Your task to perform on an android device: add a contact Image 0: 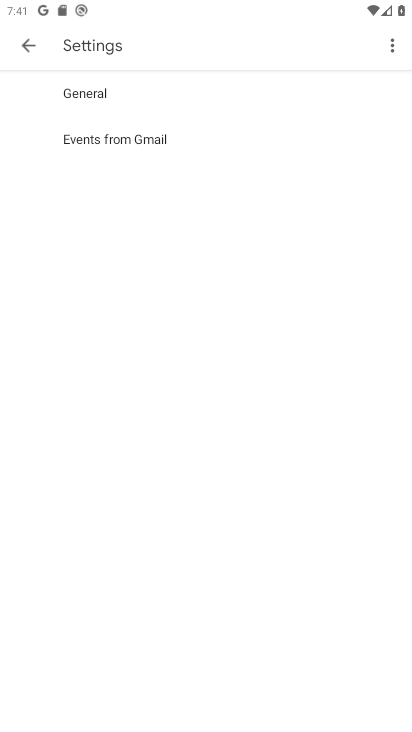
Step 0: press home button
Your task to perform on an android device: add a contact Image 1: 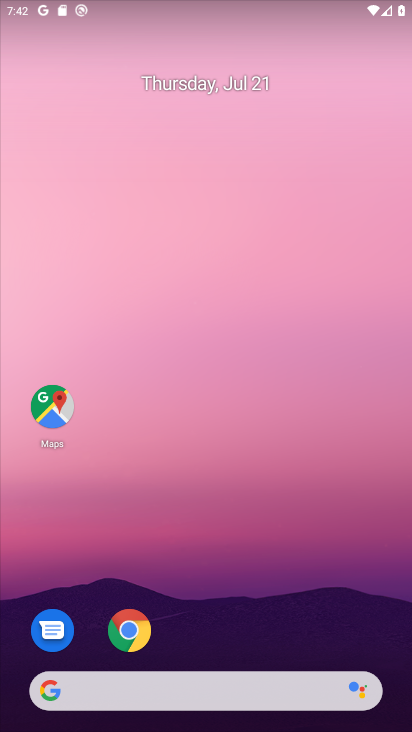
Step 1: drag from (226, 662) to (345, 37)
Your task to perform on an android device: add a contact Image 2: 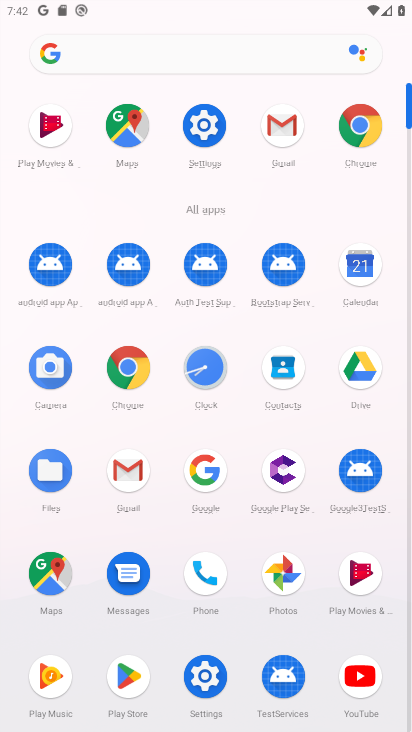
Step 2: click (215, 566)
Your task to perform on an android device: add a contact Image 3: 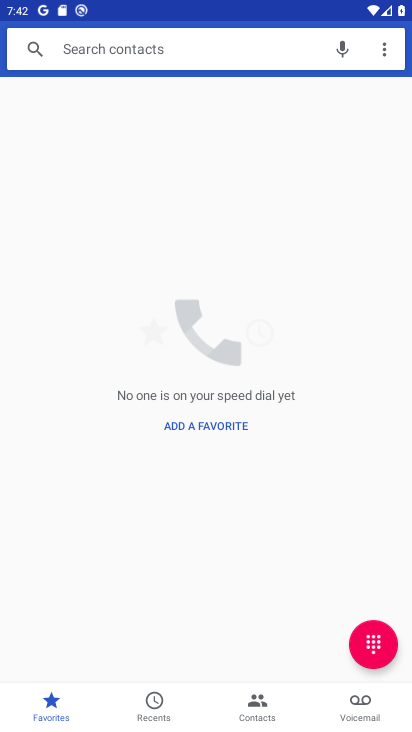
Step 3: click (249, 714)
Your task to perform on an android device: add a contact Image 4: 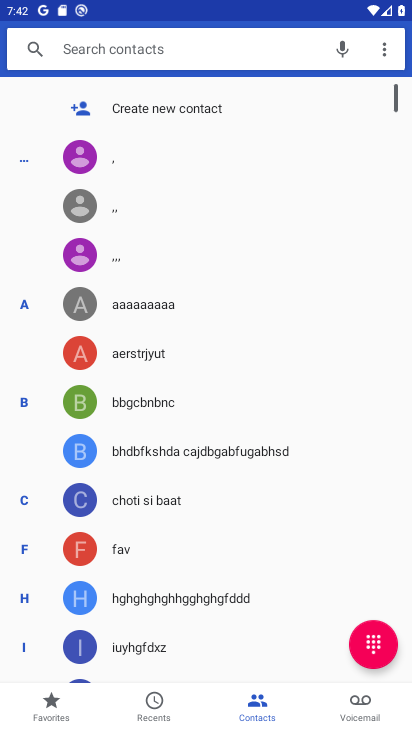
Step 4: click (133, 110)
Your task to perform on an android device: add a contact Image 5: 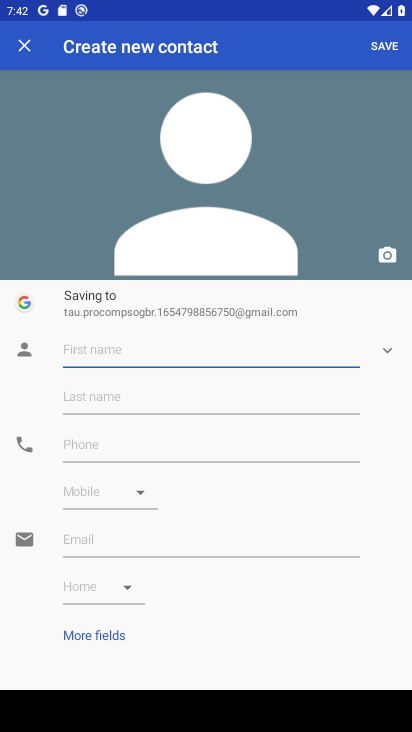
Step 5: type "hh"
Your task to perform on an android device: add a contact Image 6: 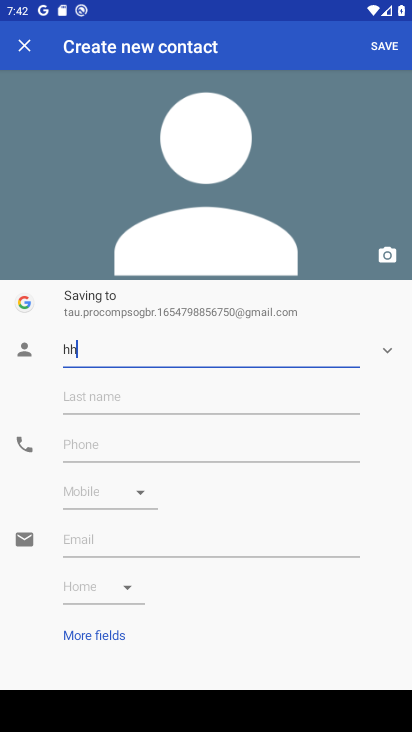
Step 6: type ""
Your task to perform on an android device: add a contact Image 7: 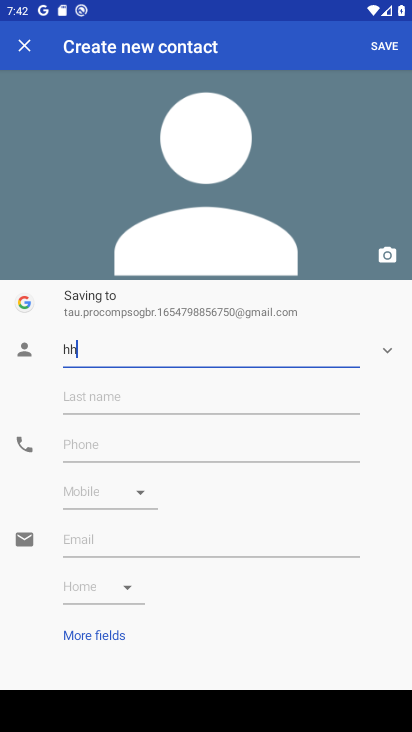
Step 7: click (138, 440)
Your task to perform on an android device: add a contact Image 8: 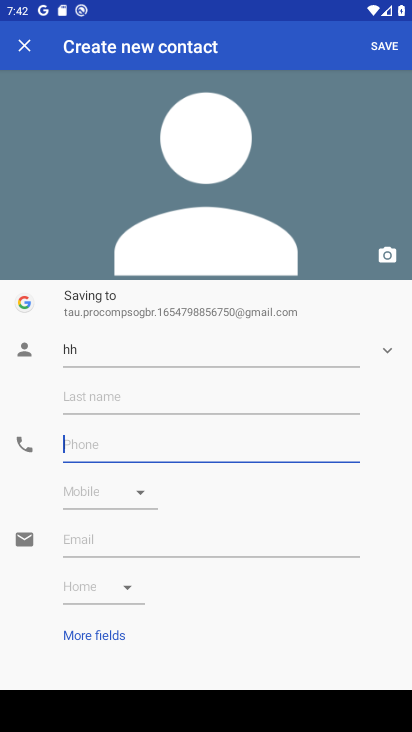
Step 8: type "64"
Your task to perform on an android device: add a contact Image 9: 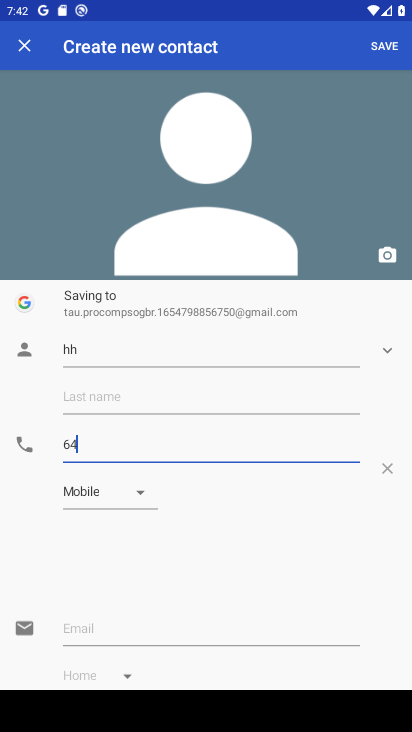
Step 9: type ""
Your task to perform on an android device: add a contact Image 10: 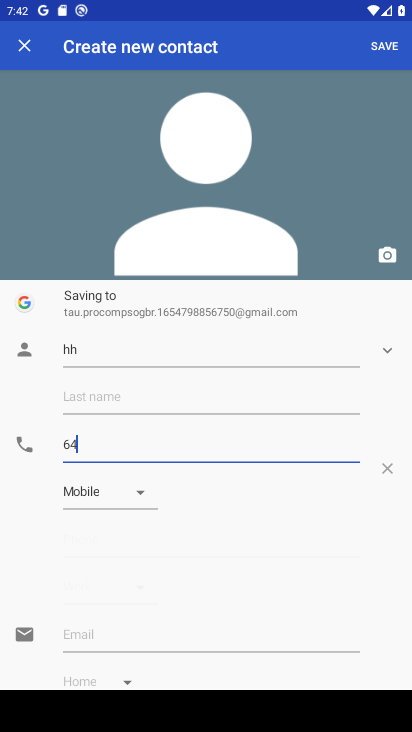
Step 10: click (380, 54)
Your task to perform on an android device: add a contact Image 11: 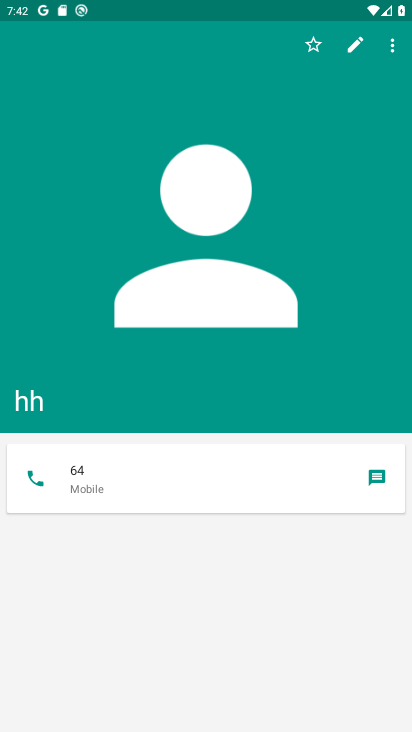
Step 11: task complete